Your task to perform on an android device: all mails in gmail Image 0: 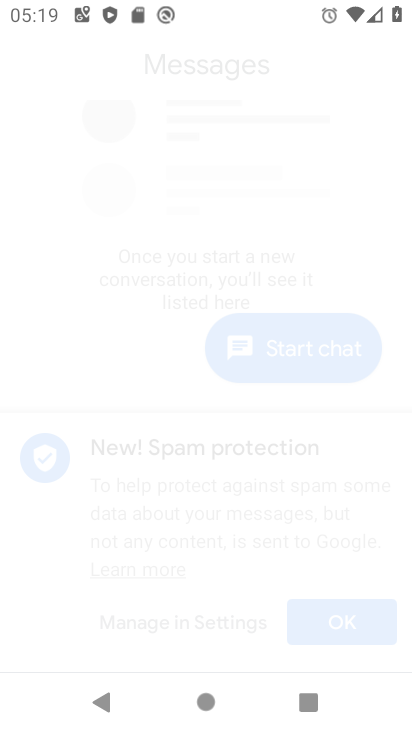
Step 0: drag from (389, 696) to (339, 75)
Your task to perform on an android device: all mails in gmail Image 1: 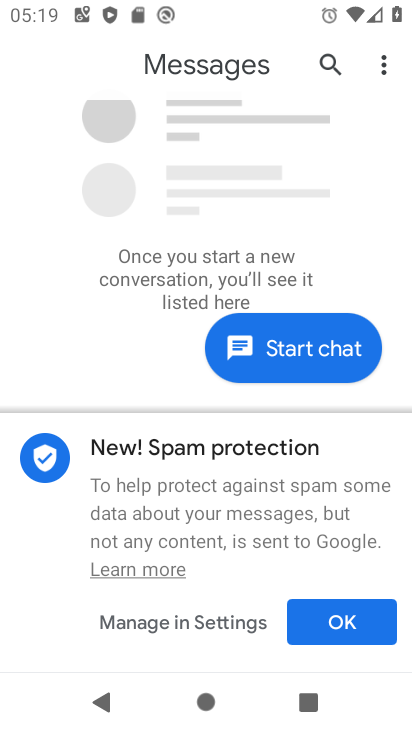
Step 1: press home button
Your task to perform on an android device: all mails in gmail Image 2: 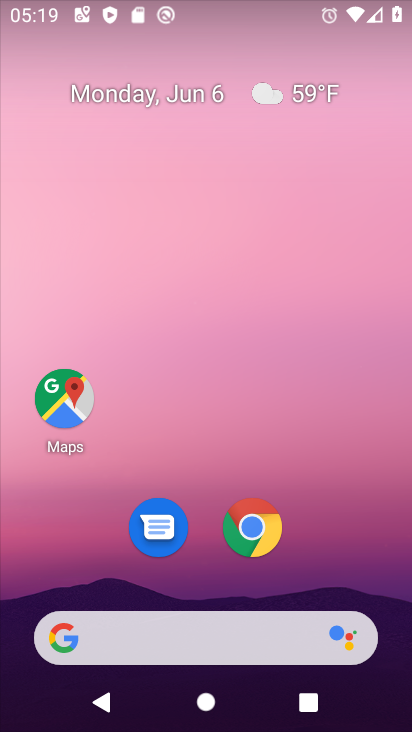
Step 2: drag from (393, 691) to (358, 0)
Your task to perform on an android device: all mails in gmail Image 3: 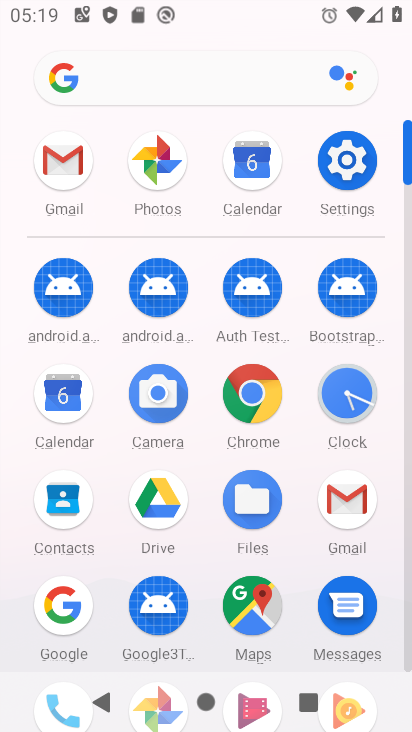
Step 3: click (334, 490)
Your task to perform on an android device: all mails in gmail Image 4: 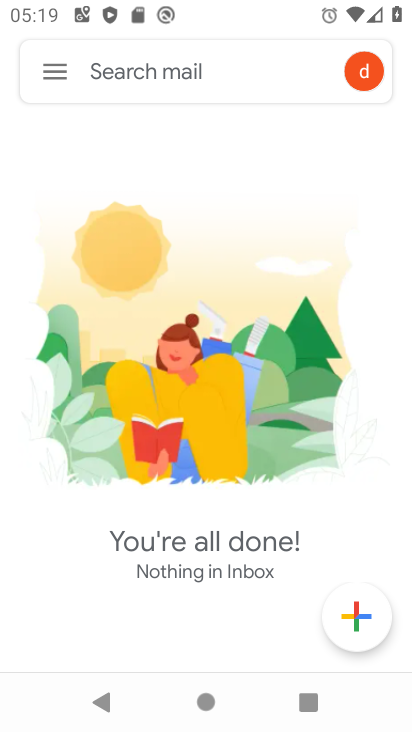
Step 4: click (40, 79)
Your task to perform on an android device: all mails in gmail Image 5: 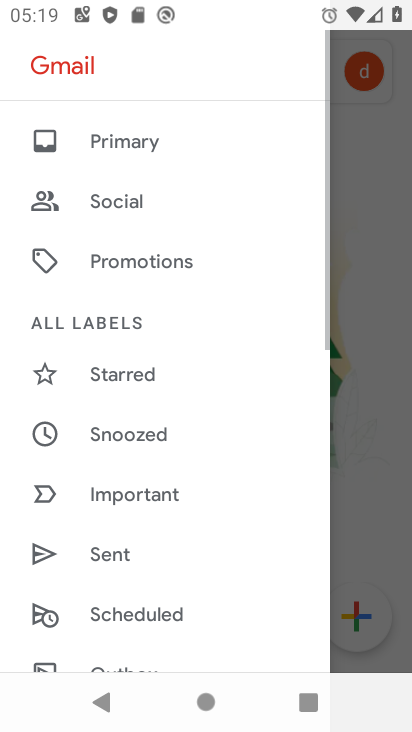
Step 5: drag from (226, 585) to (262, 260)
Your task to perform on an android device: all mails in gmail Image 6: 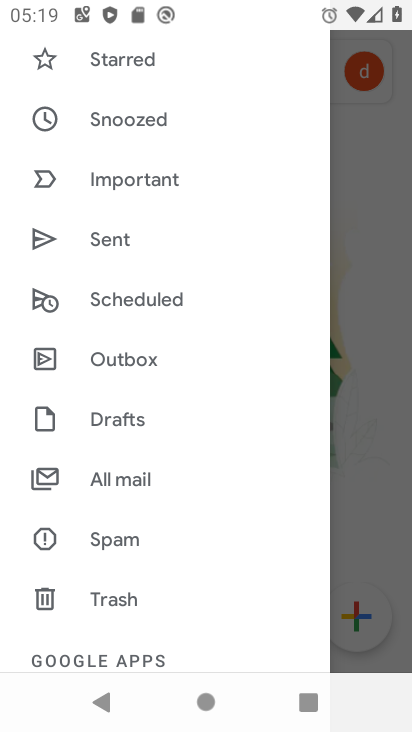
Step 6: click (121, 477)
Your task to perform on an android device: all mails in gmail Image 7: 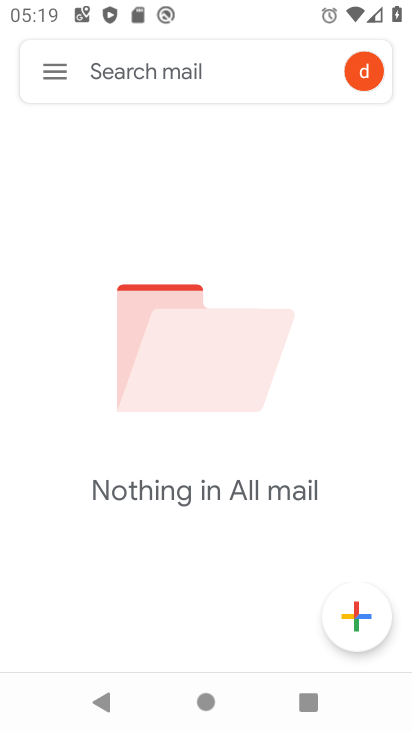
Step 7: task complete